Your task to perform on an android device: search for starred emails in the gmail app Image 0: 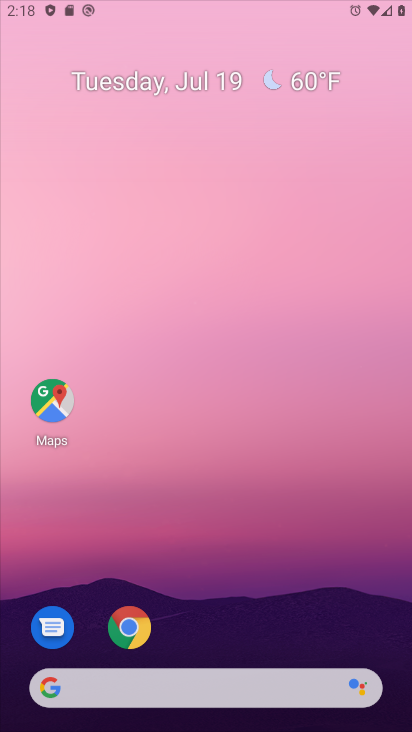
Step 0: click (227, 198)
Your task to perform on an android device: search for starred emails in the gmail app Image 1: 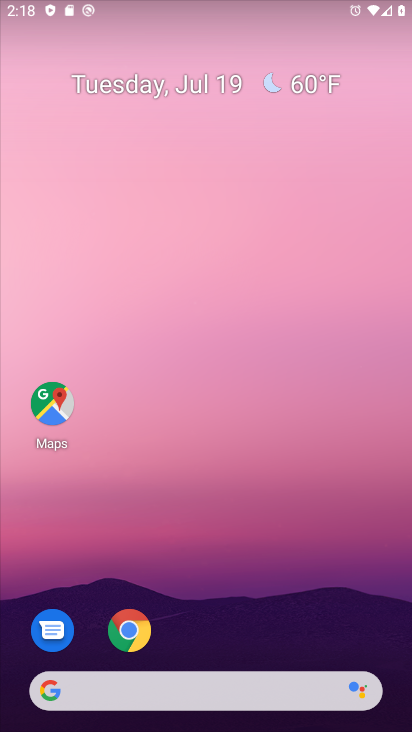
Step 1: drag from (251, 447) to (240, 246)
Your task to perform on an android device: search for starred emails in the gmail app Image 2: 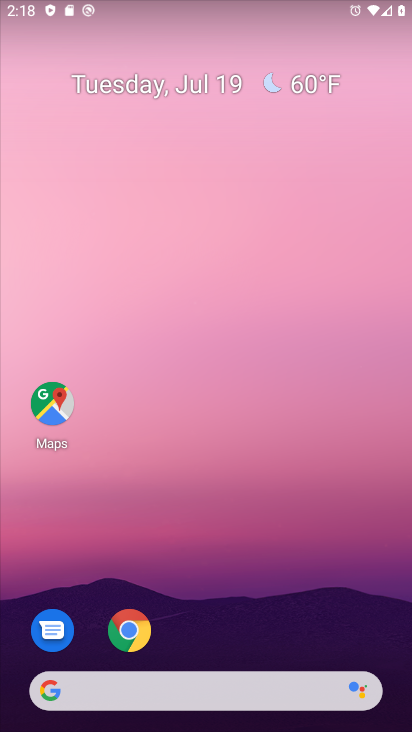
Step 2: drag from (247, 594) to (222, 293)
Your task to perform on an android device: search for starred emails in the gmail app Image 3: 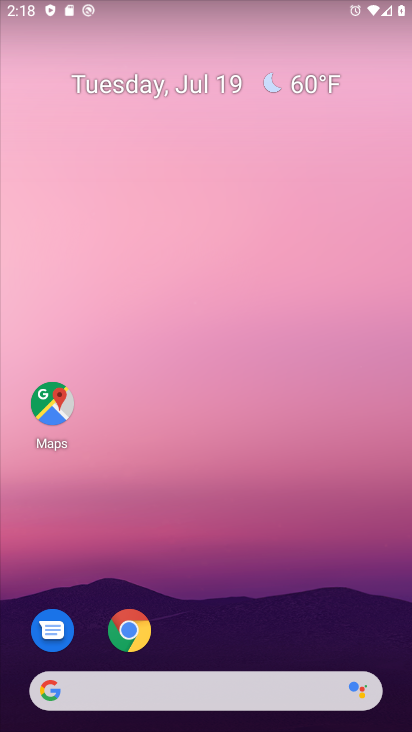
Step 3: drag from (235, 550) to (220, 266)
Your task to perform on an android device: search for starred emails in the gmail app Image 4: 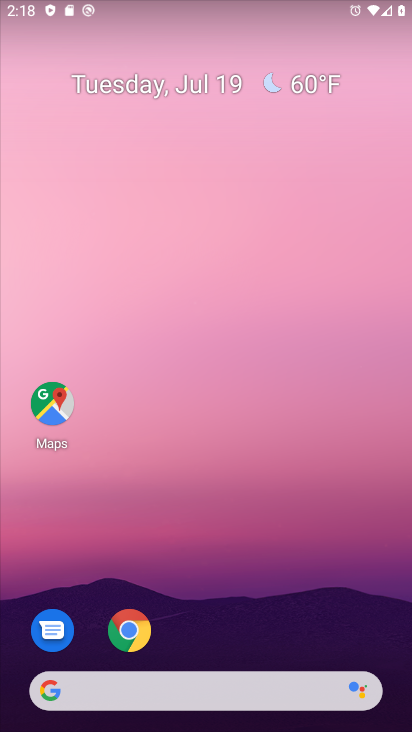
Step 4: drag from (261, 535) to (216, 205)
Your task to perform on an android device: search for starred emails in the gmail app Image 5: 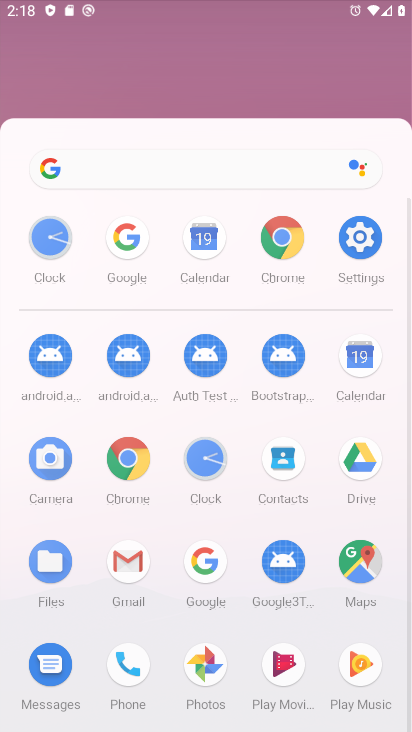
Step 5: drag from (189, 305) to (172, 193)
Your task to perform on an android device: search for starred emails in the gmail app Image 6: 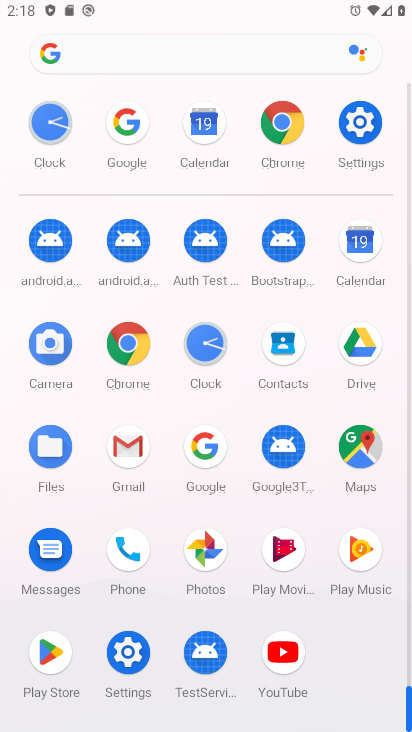
Step 6: click (135, 451)
Your task to perform on an android device: search for starred emails in the gmail app Image 7: 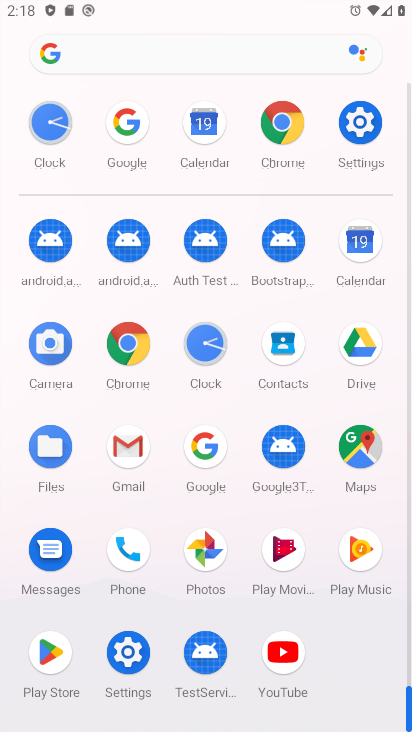
Step 7: click (136, 447)
Your task to perform on an android device: search for starred emails in the gmail app Image 8: 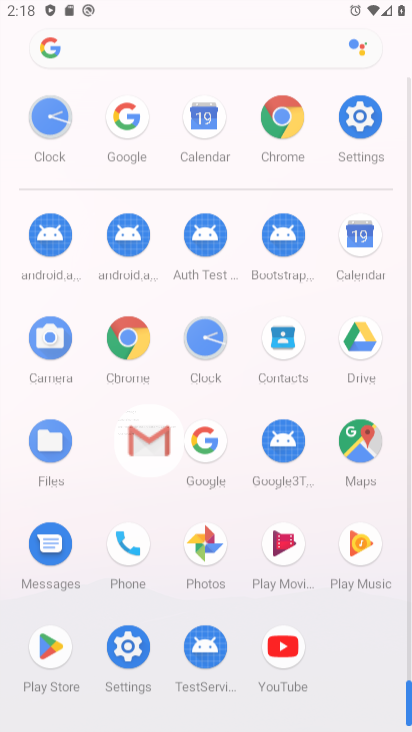
Step 8: click (136, 447)
Your task to perform on an android device: search for starred emails in the gmail app Image 9: 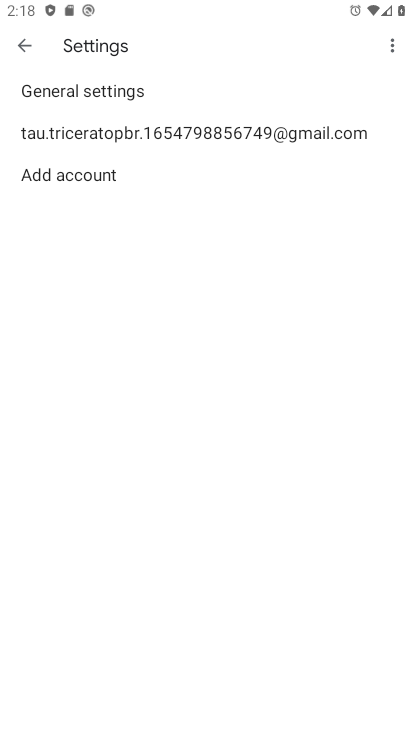
Step 9: click (137, 446)
Your task to perform on an android device: search for starred emails in the gmail app Image 10: 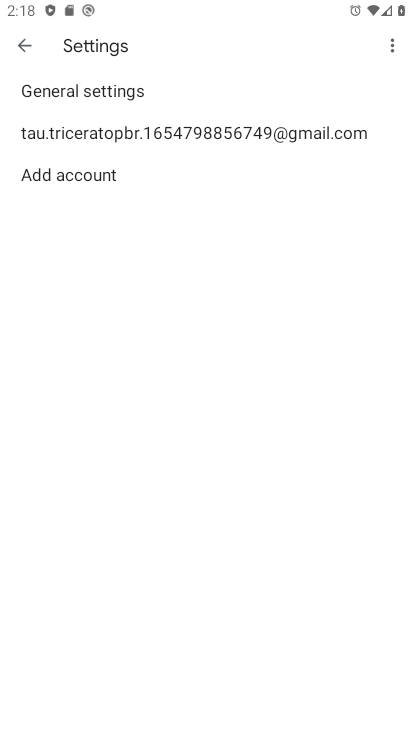
Step 10: click (161, 130)
Your task to perform on an android device: search for starred emails in the gmail app Image 11: 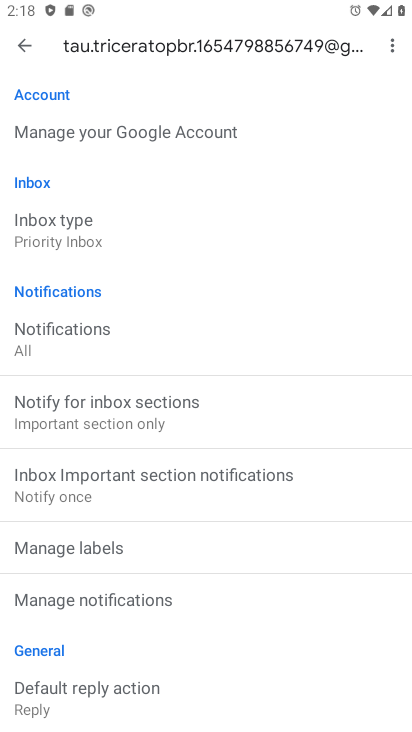
Step 11: click (26, 44)
Your task to perform on an android device: search for starred emails in the gmail app Image 12: 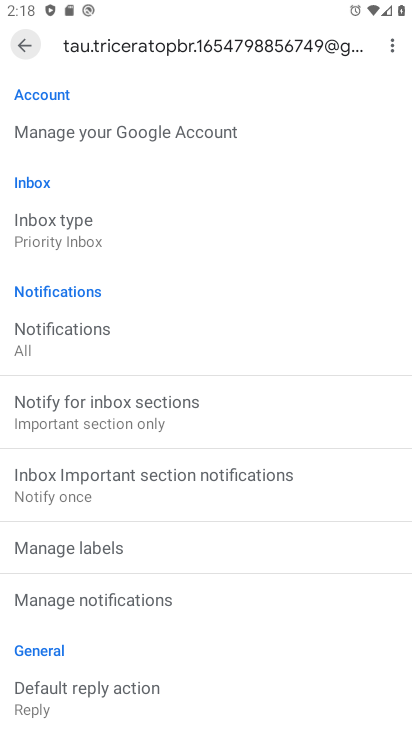
Step 12: click (26, 46)
Your task to perform on an android device: search for starred emails in the gmail app Image 13: 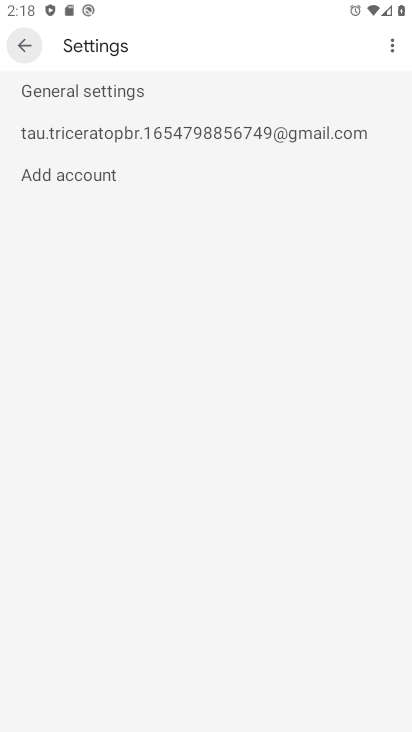
Step 13: click (27, 48)
Your task to perform on an android device: search for starred emails in the gmail app Image 14: 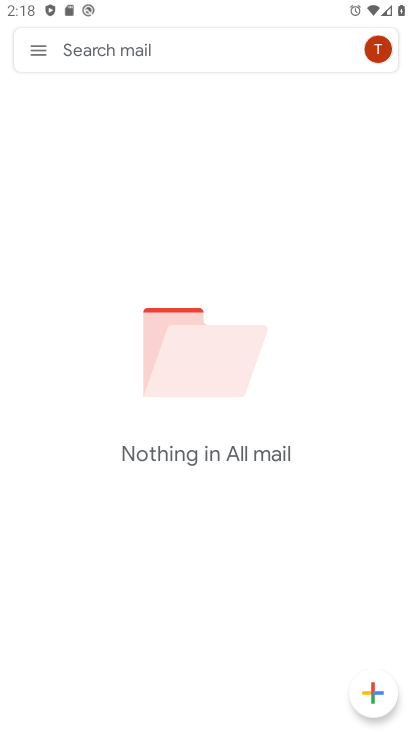
Step 14: click (37, 54)
Your task to perform on an android device: search for starred emails in the gmail app Image 15: 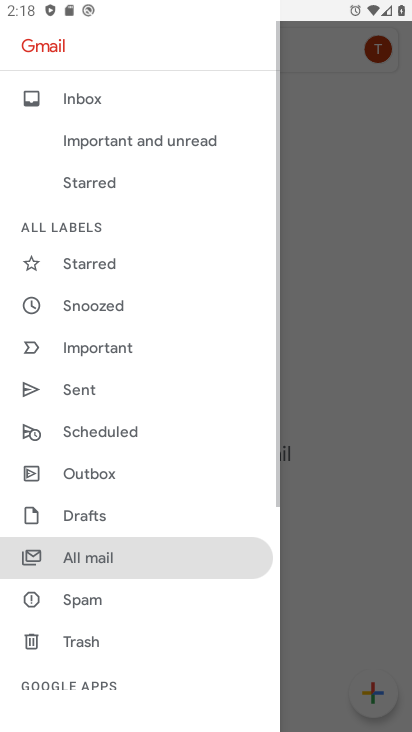
Step 15: click (98, 258)
Your task to perform on an android device: search for starred emails in the gmail app Image 16: 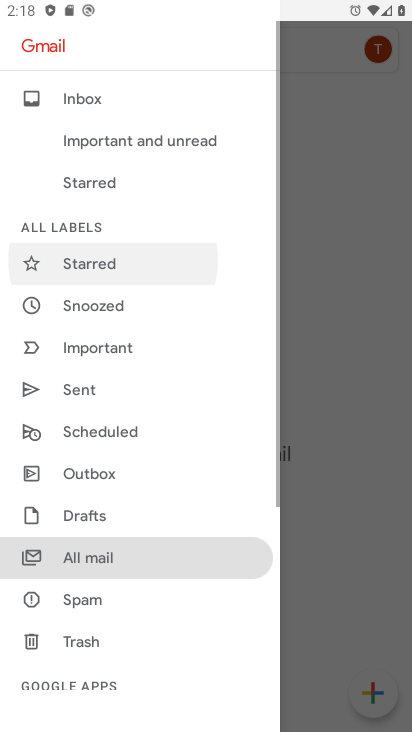
Step 16: click (98, 258)
Your task to perform on an android device: search for starred emails in the gmail app Image 17: 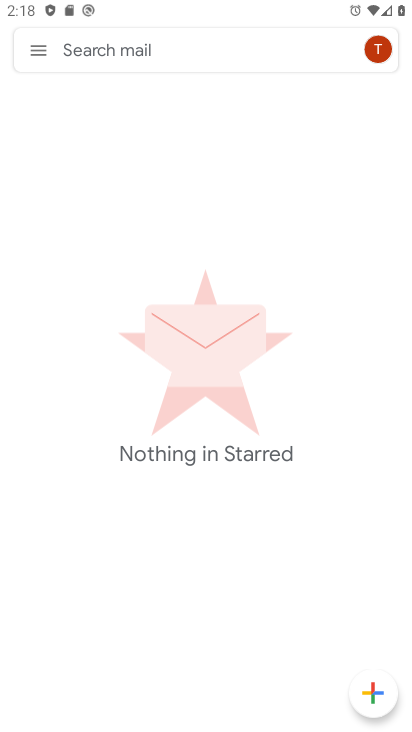
Step 17: task complete